Your task to perform on an android device: set the stopwatch Image 0: 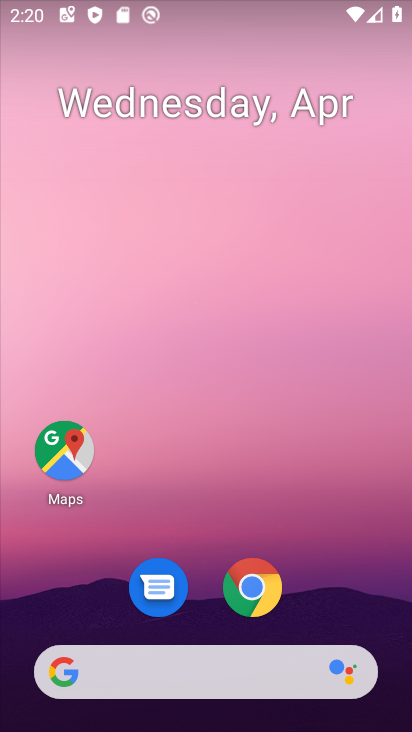
Step 0: drag from (209, 702) to (101, 11)
Your task to perform on an android device: set the stopwatch Image 1: 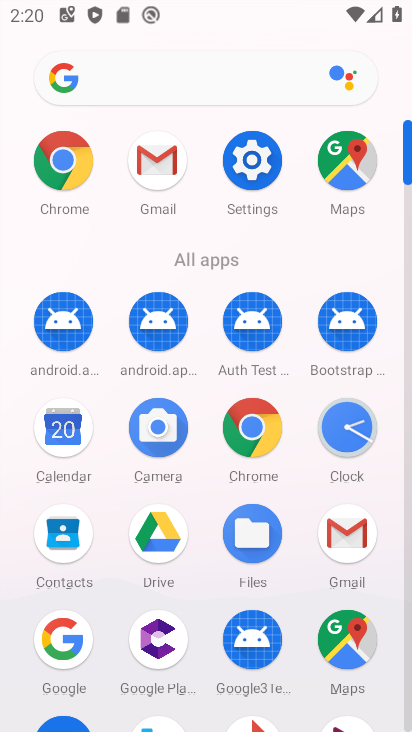
Step 1: click (343, 429)
Your task to perform on an android device: set the stopwatch Image 2: 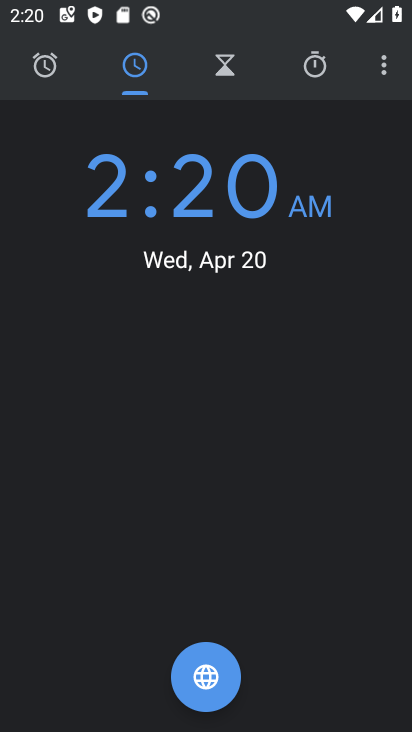
Step 2: click (387, 61)
Your task to perform on an android device: set the stopwatch Image 3: 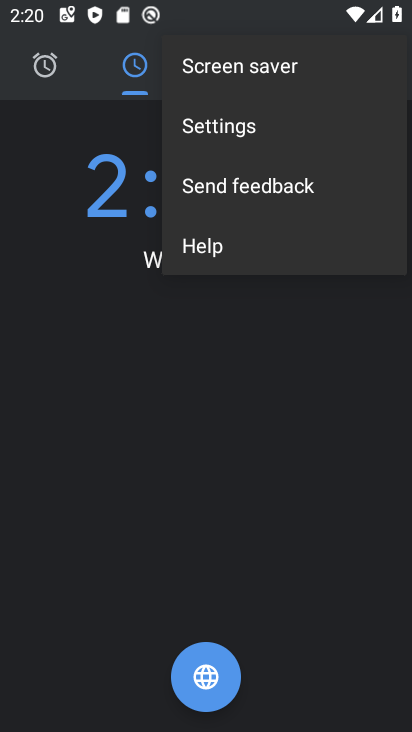
Step 3: click (86, 487)
Your task to perform on an android device: set the stopwatch Image 4: 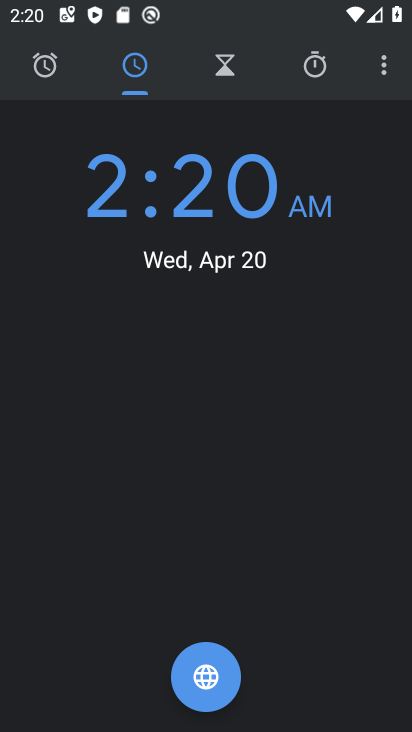
Step 4: click (314, 77)
Your task to perform on an android device: set the stopwatch Image 5: 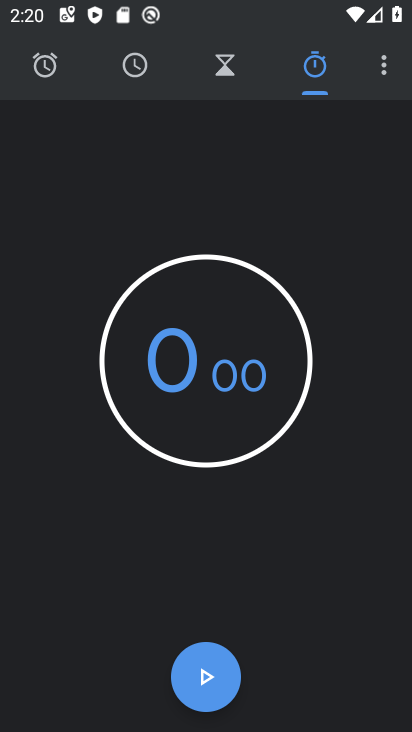
Step 5: task complete